Your task to perform on an android device: change notifications settings Image 0: 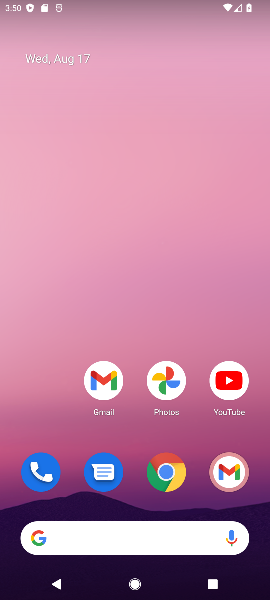
Step 0: drag from (133, 432) to (120, 87)
Your task to perform on an android device: change notifications settings Image 1: 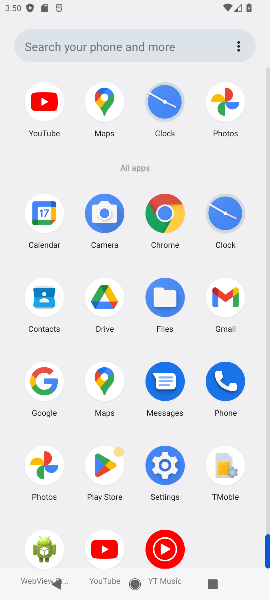
Step 1: click (162, 463)
Your task to perform on an android device: change notifications settings Image 2: 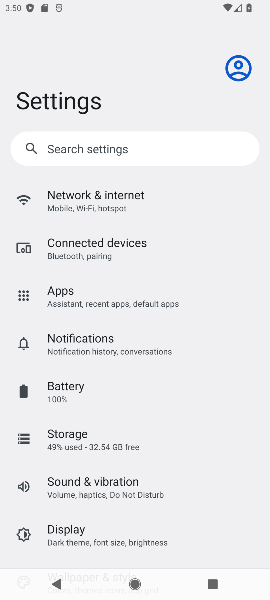
Step 2: click (113, 331)
Your task to perform on an android device: change notifications settings Image 3: 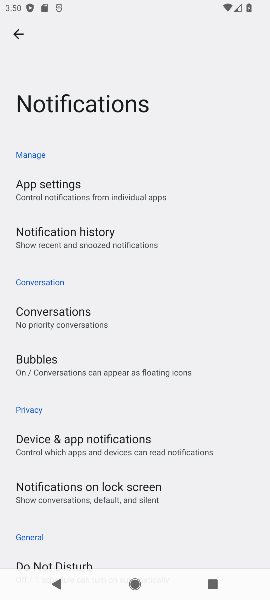
Step 3: drag from (107, 475) to (122, 237)
Your task to perform on an android device: change notifications settings Image 4: 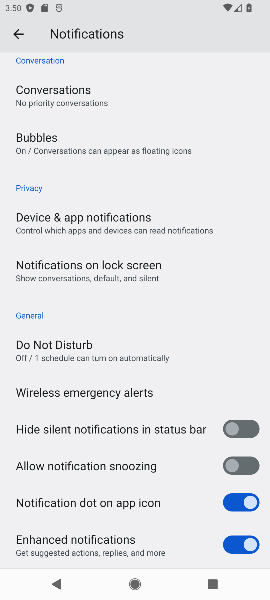
Step 4: click (122, 278)
Your task to perform on an android device: change notifications settings Image 5: 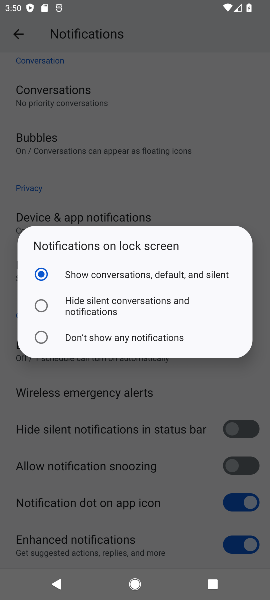
Step 5: click (110, 333)
Your task to perform on an android device: change notifications settings Image 6: 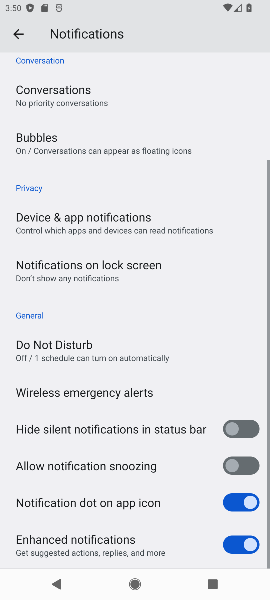
Step 6: task complete